Your task to perform on an android device: turn pop-ups off in chrome Image 0: 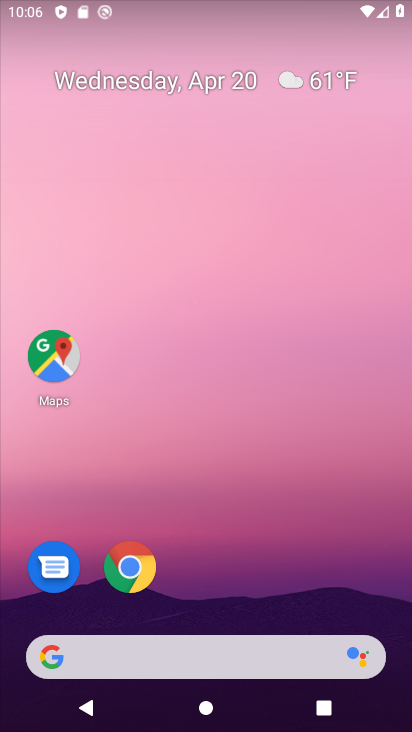
Step 0: click (55, 346)
Your task to perform on an android device: turn pop-ups off in chrome Image 1: 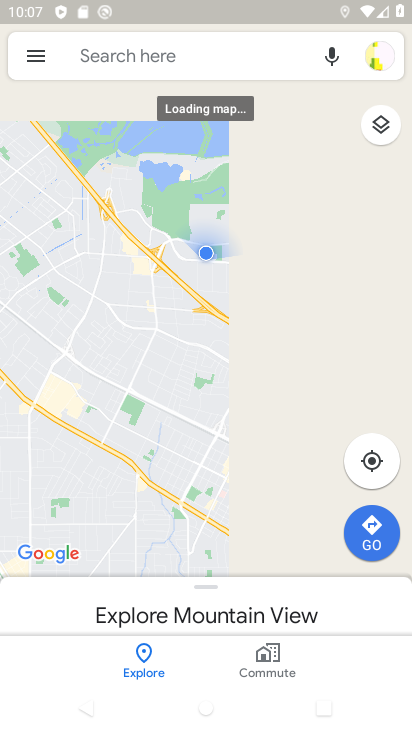
Step 1: click (175, 65)
Your task to perform on an android device: turn pop-ups off in chrome Image 2: 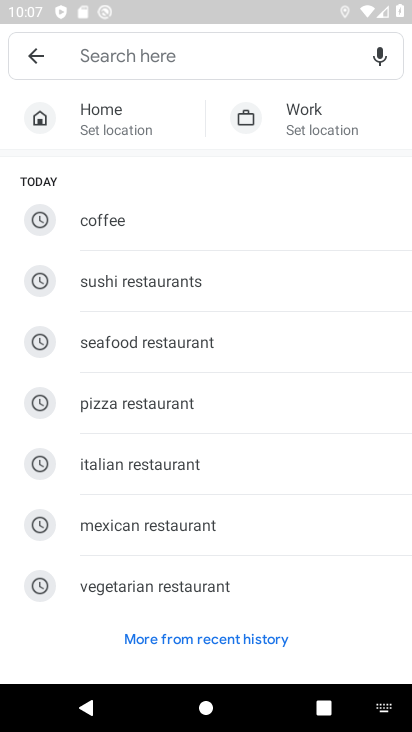
Step 2: press back button
Your task to perform on an android device: turn pop-ups off in chrome Image 3: 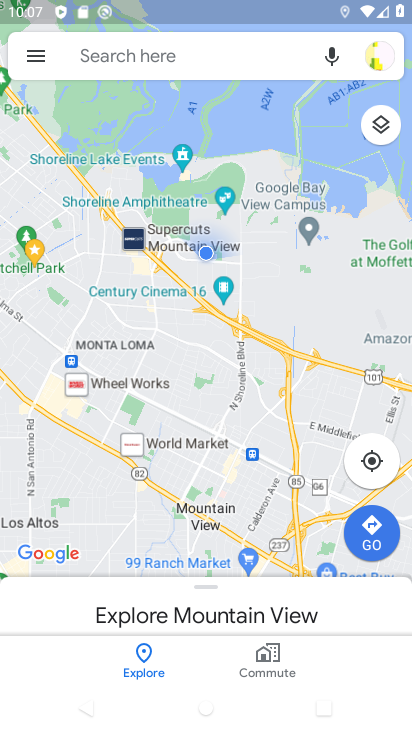
Step 3: press back button
Your task to perform on an android device: turn pop-ups off in chrome Image 4: 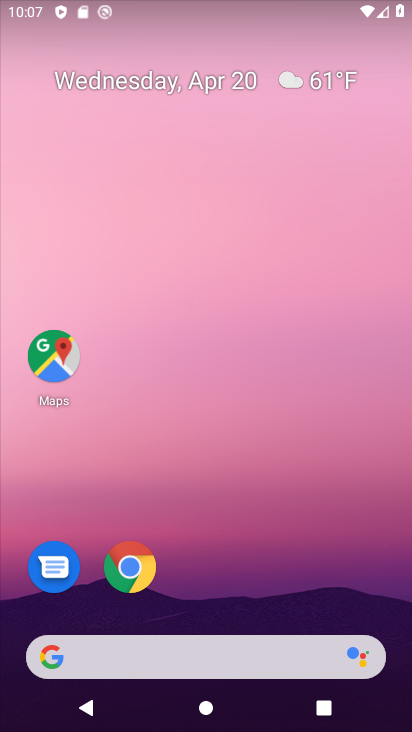
Step 4: click (141, 576)
Your task to perform on an android device: turn pop-ups off in chrome Image 5: 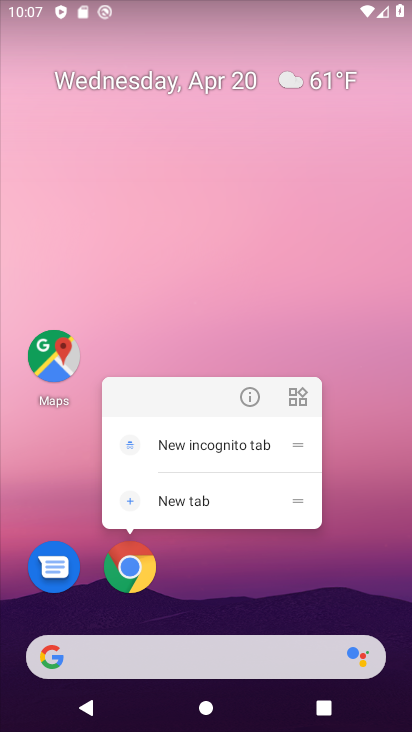
Step 5: click (130, 565)
Your task to perform on an android device: turn pop-ups off in chrome Image 6: 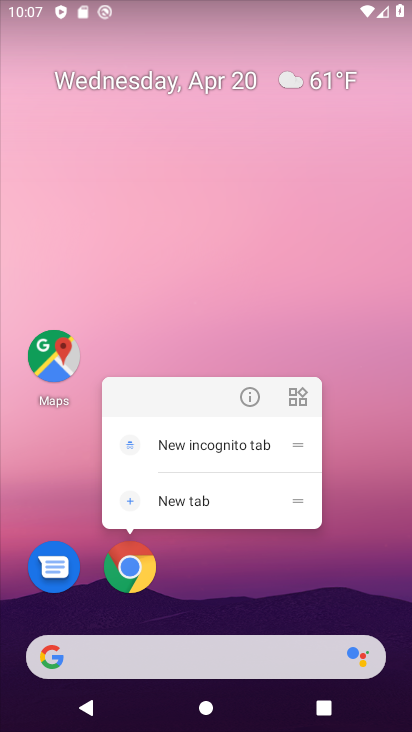
Step 6: click (129, 565)
Your task to perform on an android device: turn pop-ups off in chrome Image 7: 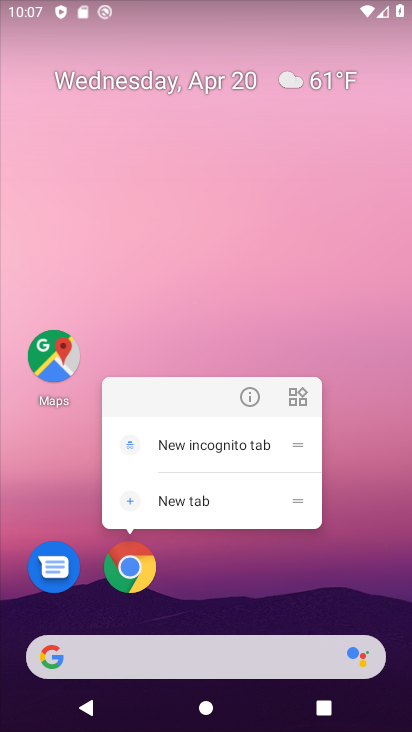
Step 7: click (134, 563)
Your task to perform on an android device: turn pop-ups off in chrome Image 8: 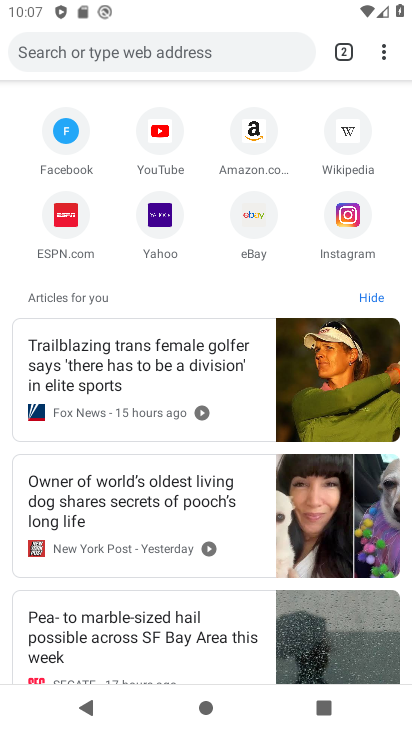
Step 8: drag from (376, 57) to (214, 488)
Your task to perform on an android device: turn pop-ups off in chrome Image 9: 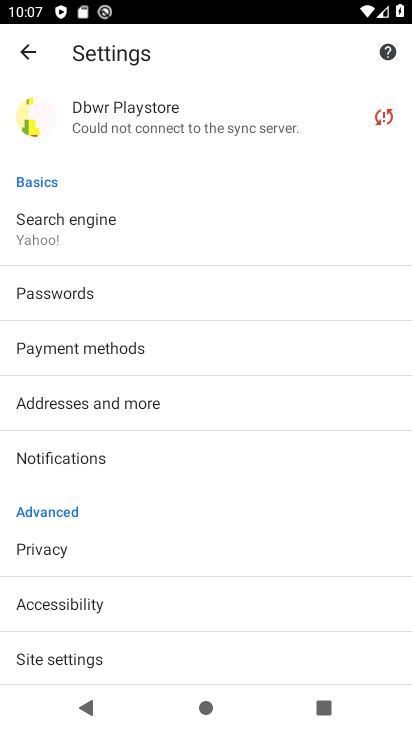
Step 9: click (119, 650)
Your task to perform on an android device: turn pop-ups off in chrome Image 10: 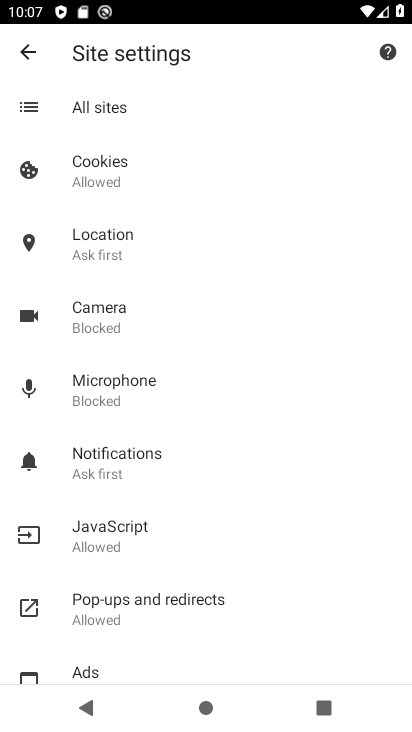
Step 10: click (107, 615)
Your task to perform on an android device: turn pop-ups off in chrome Image 11: 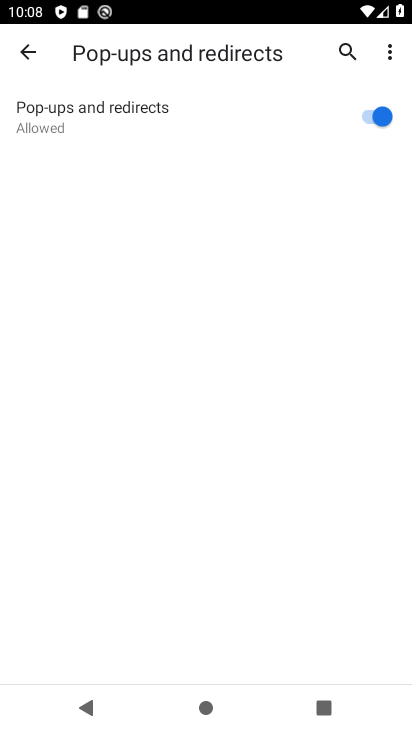
Step 11: click (373, 117)
Your task to perform on an android device: turn pop-ups off in chrome Image 12: 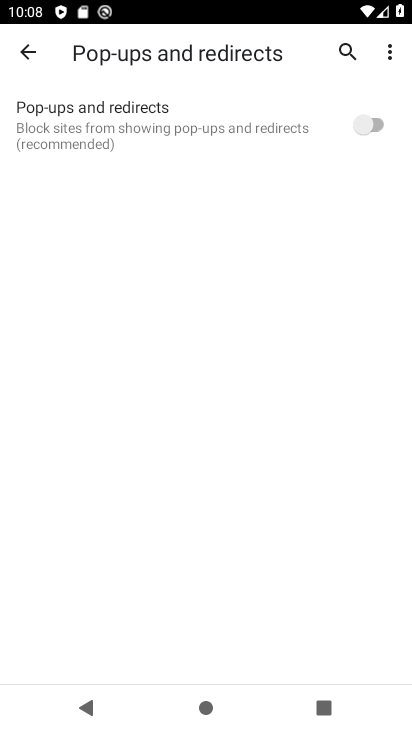
Step 12: task complete